Your task to perform on an android device: check data usage Image 0: 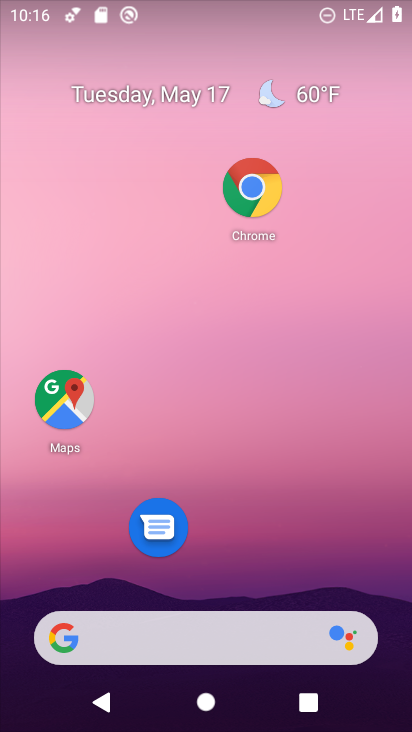
Step 0: drag from (325, 568) to (291, 26)
Your task to perform on an android device: check data usage Image 1: 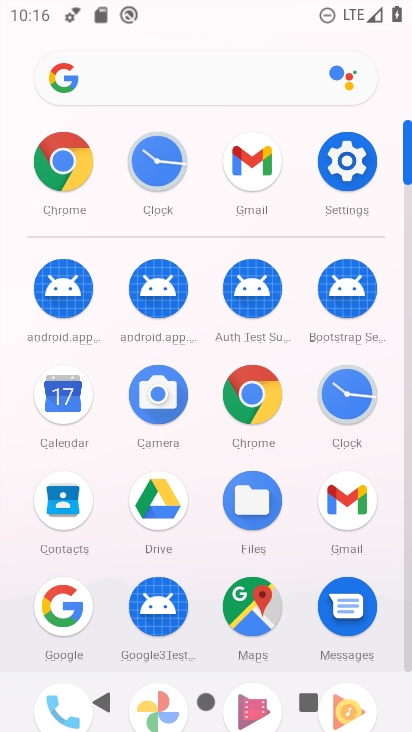
Step 1: click (340, 242)
Your task to perform on an android device: check data usage Image 2: 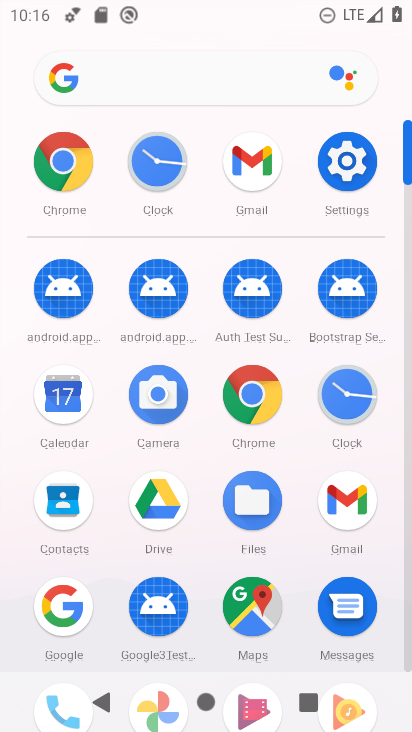
Step 2: click (321, 194)
Your task to perform on an android device: check data usage Image 3: 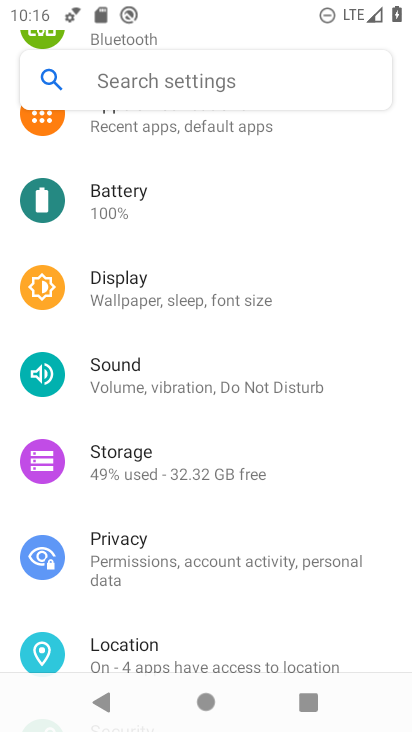
Step 3: drag from (216, 155) to (313, 484)
Your task to perform on an android device: check data usage Image 4: 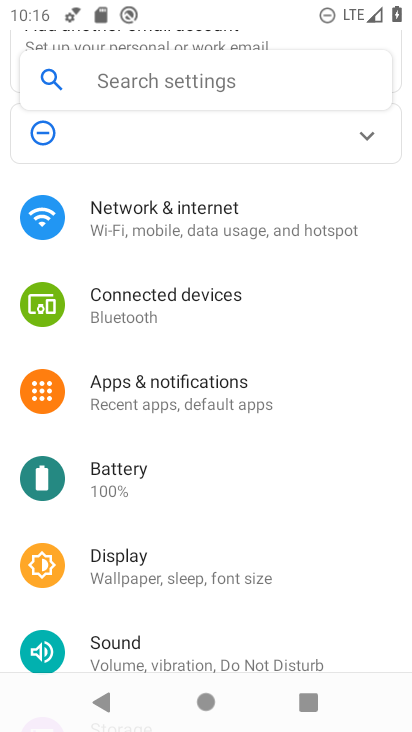
Step 4: click (258, 221)
Your task to perform on an android device: check data usage Image 5: 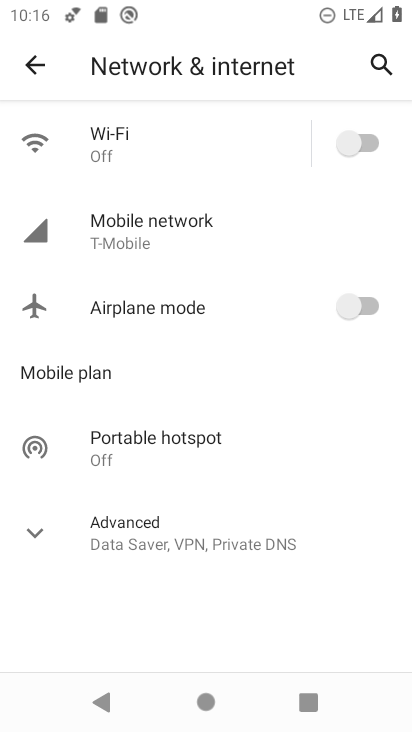
Step 5: click (244, 225)
Your task to perform on an android device: check data usage Image 6: 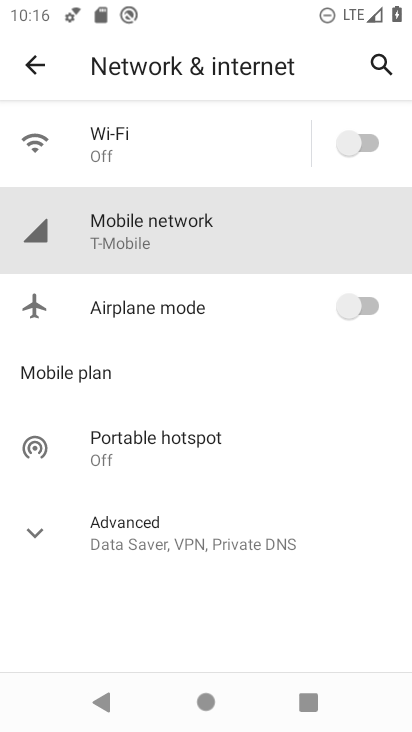
Step 6: task complete